Your task to perform on an android device: Add razer blade to the cart on walmart Image 0: 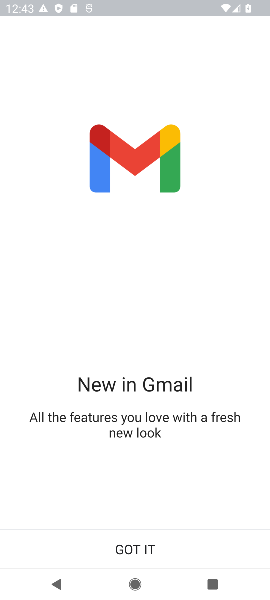
Step 0: press home button
Your task to perform on an android device: Add razer blade to the cart on walmart Image 1: 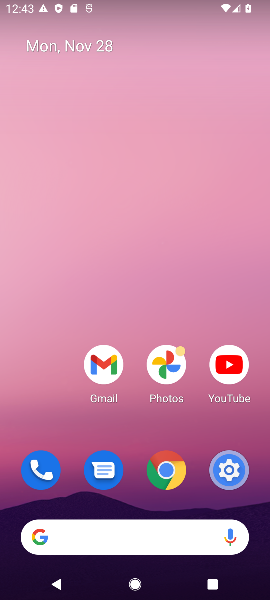
Step 1: click (131, 543)
Your task to perform on an android device: Add razer blade to the cart on walmart Image 2: 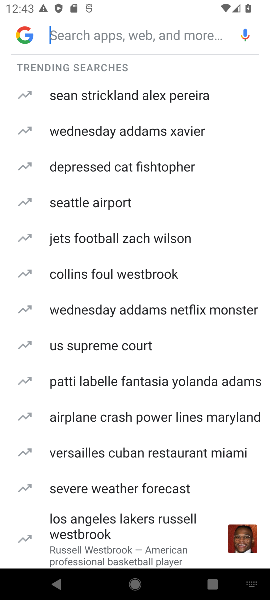
Step 2: type "walmart"
Your task to perform on an android device: Add razer blade to the cart on walmart Image 3: 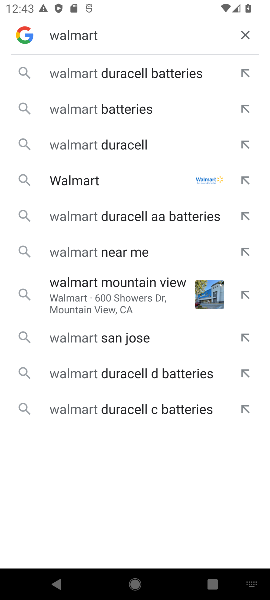
Step 3: click (77, 188)
Your task to perform on an android device: Add razer blade to the cart on walmart Image 4: 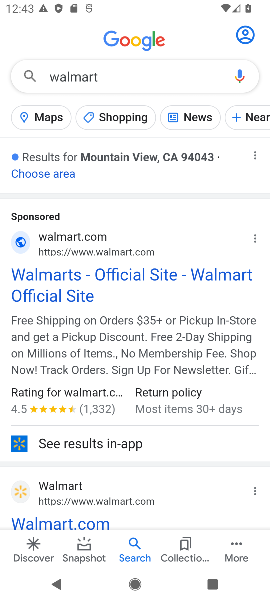
Step 4: click (51, 296)
Your task to perform on an android device: Add razer blade to the cart on walmart Image 5: 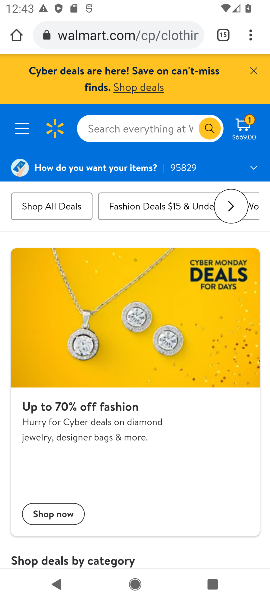
Step 5: click (126, 137)
Your task to perform on an android device: Add razer blade to the cart on walmart Image 6: 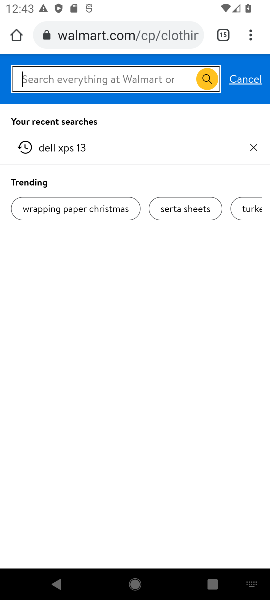
Step 6: type "razer blade"
Your task to perform on an android device: Add razer blade to the cart on walmart Image 7: 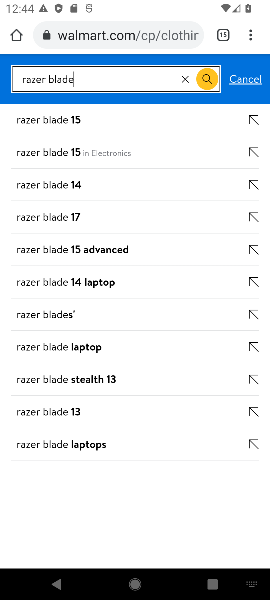
Step 7: click (122, 117)
Your task to perform on an android device: Add razer blade to the cart on walmart Image 8: 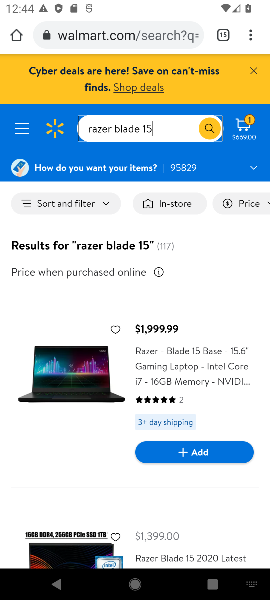
Step 8: click (208, 458)
Your task to perform on an android device: Add razer blade to the cart on walmart Image 9: 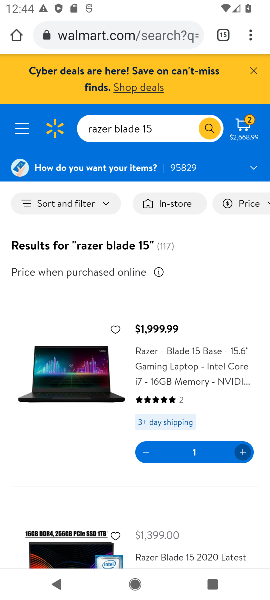
Step 9: task complete